Your task to perform on an android device: Search for pizza restaurants on Maps Image 0: 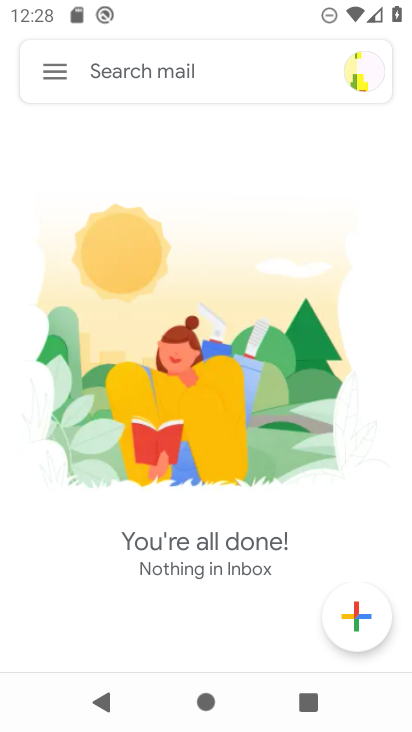
Step 0: press home button
Your task to perform on an android device: Search for pizza restaurants on Maps Image 1: 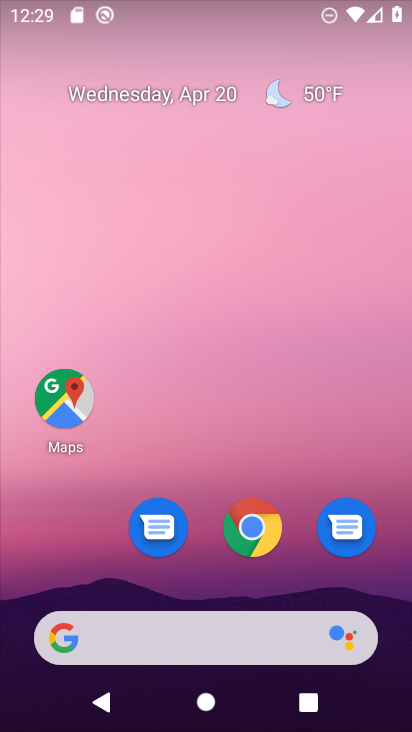
Step 1: click (67, 405)
Your task to perform on an android device: Search for pizza restaurants on Maps Image 2: 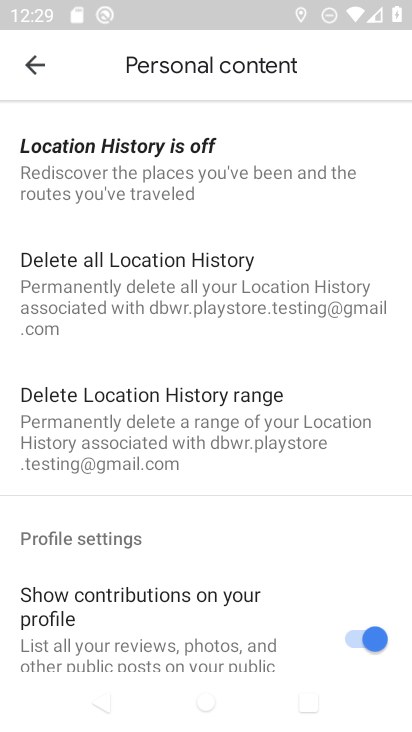
Step 2: click (36, 72)
Your task to perform on an android device: Search for pizza restaurants on Maps Image 3: 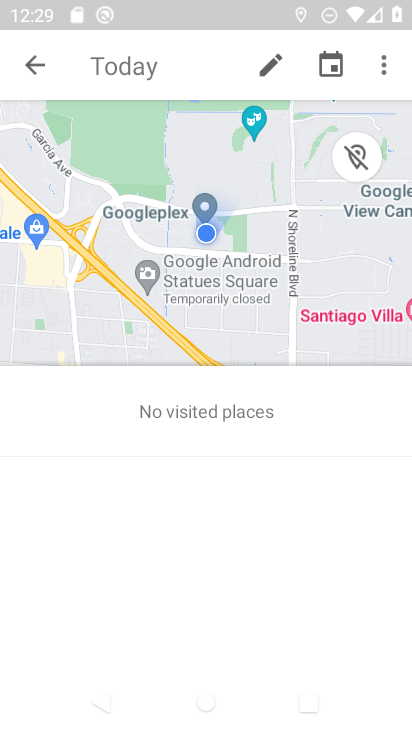
Step 3: click (34, 60)
Your task to perform on an android device: Search for pizza restaurants on Maps Image 4: 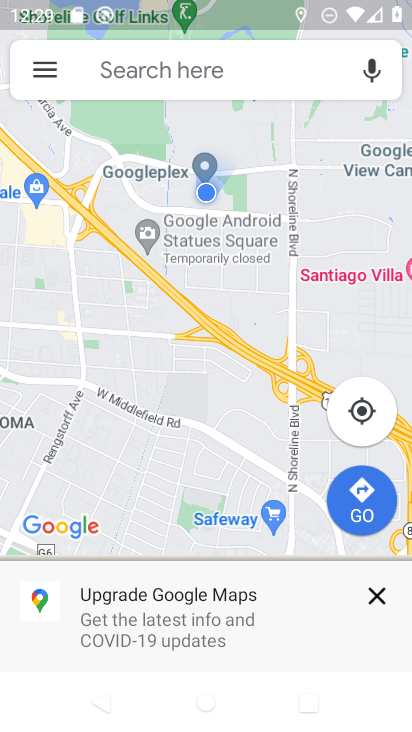
Step 4: click (111, 64)
Your task to perform on an android device: Search for pizza restaurants on Maps Image 5: 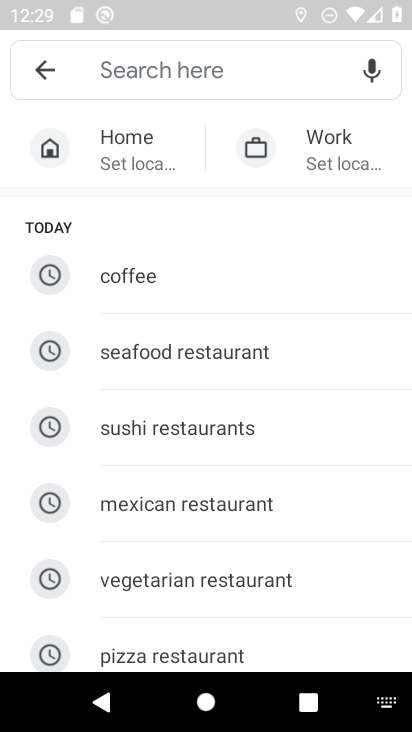
Step 5: type "pizza restaurant "
Your task to perform on an android device: Search for pizza restaurants on Maps Image 6: 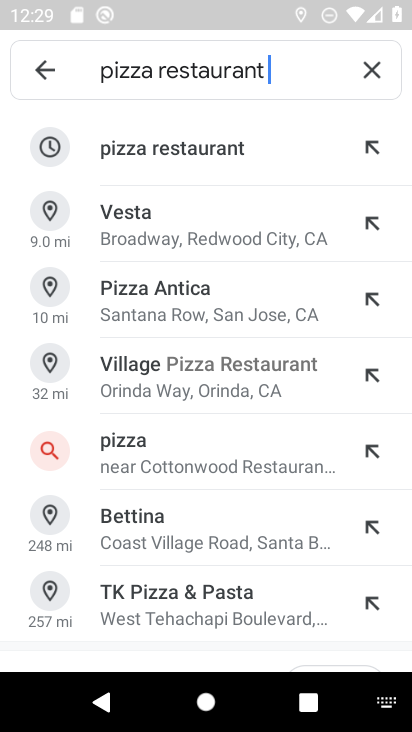
Step 6: click (143, 154)
Your task to perform on an android device: Search for pizza restaurants on Maps Image 7: 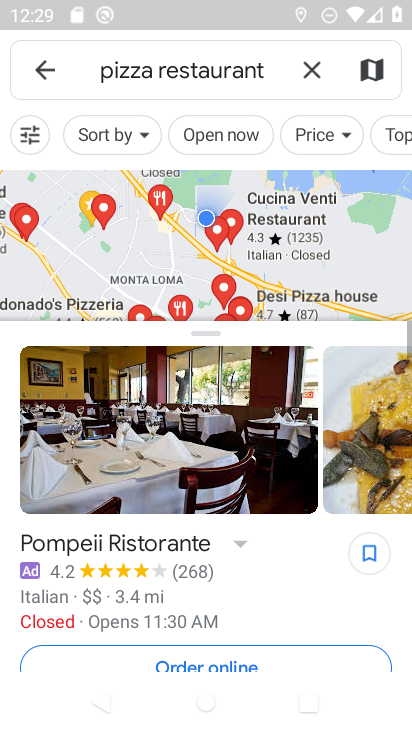
Step 7: drag from (282, 568) to (271, 329)
Your task to perform on an android device: Search for pizza restaurants on Maps Image 8: 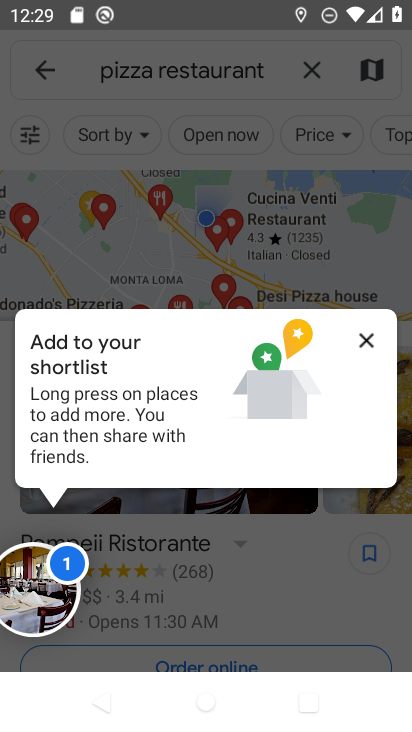
Step 8: click (373, 341)
Your task to perform on an android device: Search for pizza restaurants on Maps Image 9: 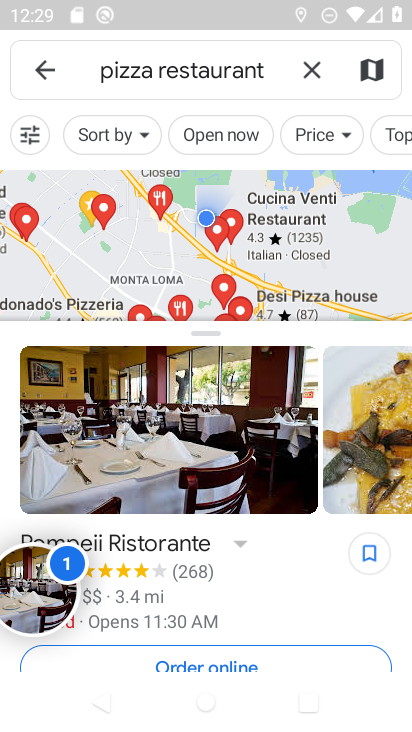
Step 9: task complete